Your task to perform on an android device: Do I have any events this weekend? Image 0: 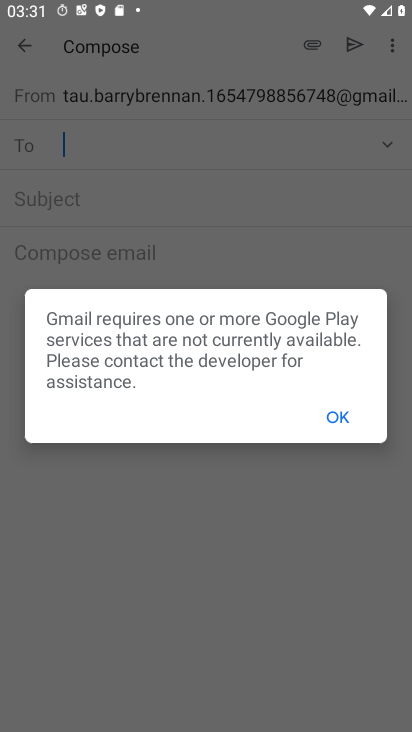
Step 0: click (326, 415)
Your task to perform on an android device: Do I have any events this weekend? Image 1: 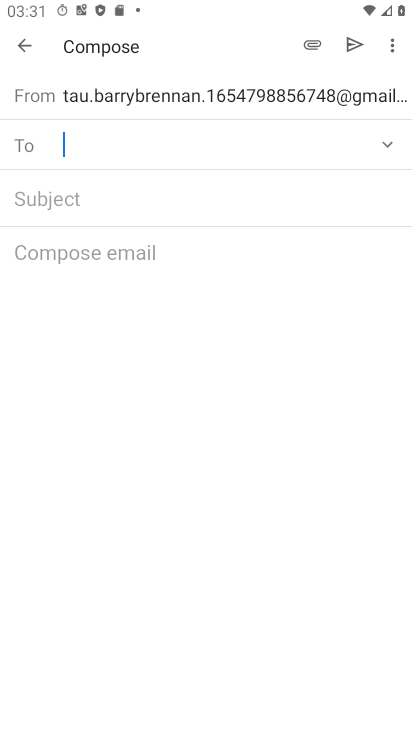
Step 1: click (24, 37)
Your task to perform on an android device: Do I have any events this weekend? Image 2: 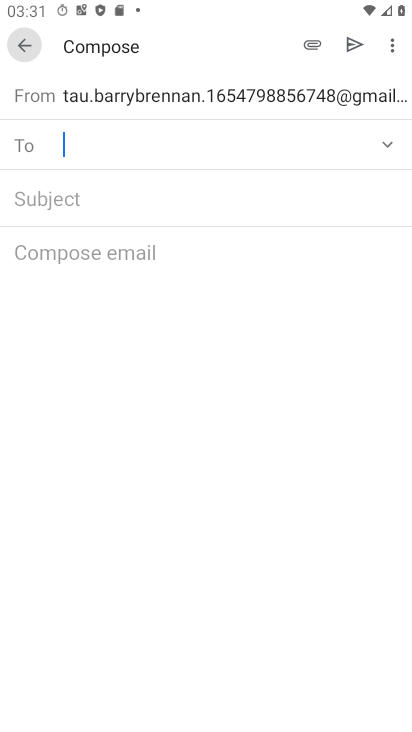
Step 2: click (24, 40)
Your task to perform on an android device: Do I have any events this weekend? Image 3: 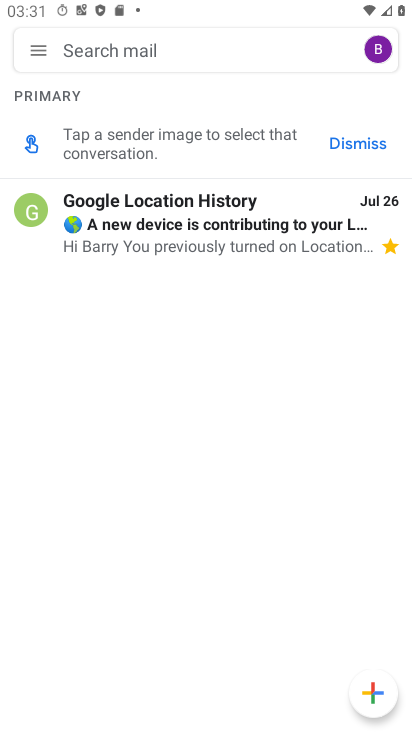
Step 3: press back button
Your task to perform on an android device: Do I have any events this weekend? Image 4: 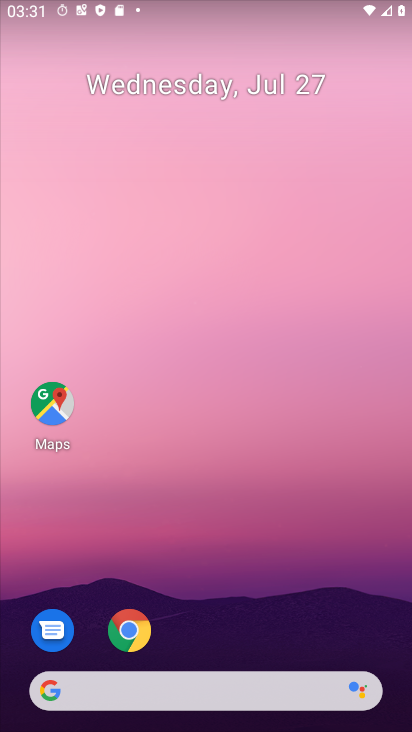
Step 4: drag from (304, 586) to (178, 115)
Your task to perform on an android device: Do I have any events this weekend? Image 5: 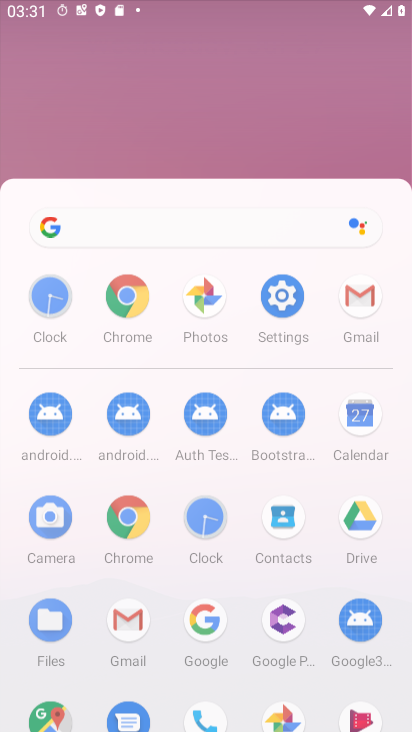
Step 5: drag from (287, 430) to (247, 153)
Your task to perform on an android device: Do I have any events this weekend? Image 6: 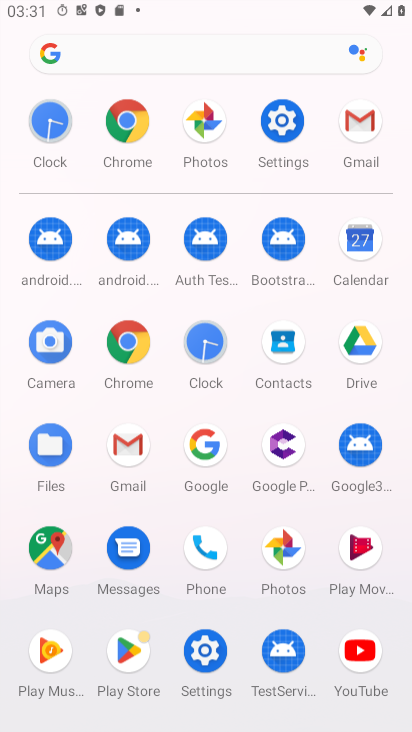
Step 6: drag from (237, 476) to (202, 126)
Your task to perform on an android device: Do I have any events this weekend? Image 7: 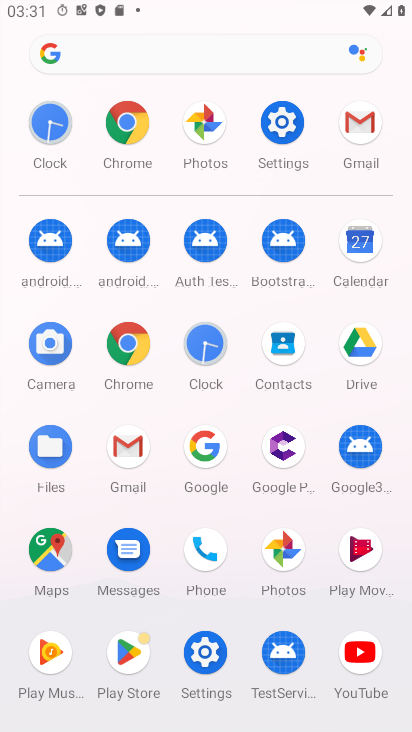
Step 7: click (362, 237)
Your task to perform on an android device: Do I have any events this weekend? Image 8: 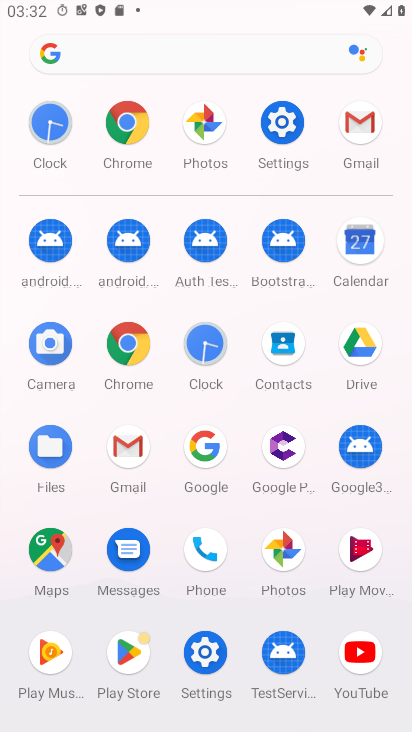
Step 8: click (367, 239)
Your task to perform on an android device: Do I have any events this weekend? Image 9: 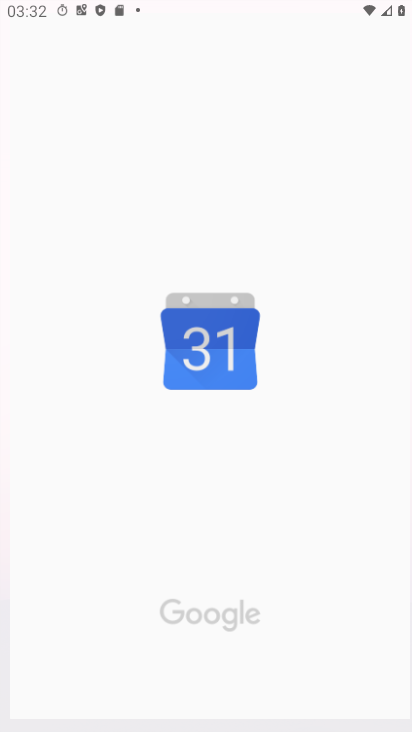
Step 9: click (367, 239)
Your task to perform on an android device: Do I have any events this weekend? Image 10: 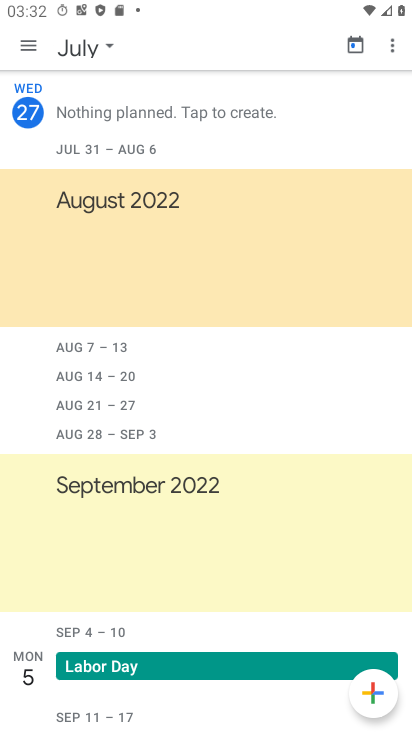
Step 10: click (109, 53)
Your task to perform on an android device: Do I have any events this weekend? Image 11: 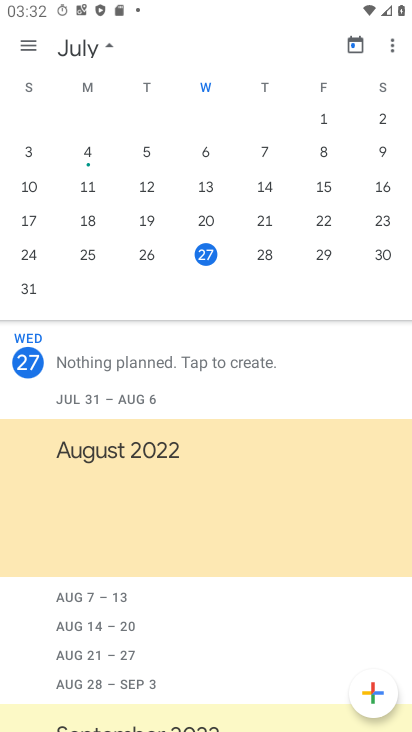
Step 11: click (315, 221)
Your task to perform on an android device: Do I have any events this weekend? Image 12: 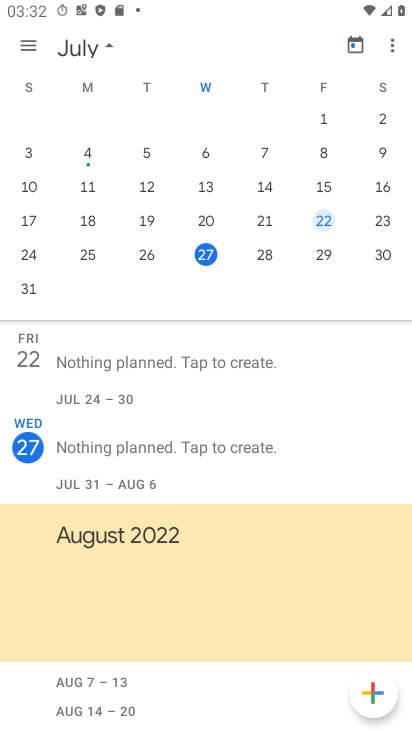
Step 12: click (318, 259)
Your task to perform on an android device: Do I have any events this weekend? Image 13: 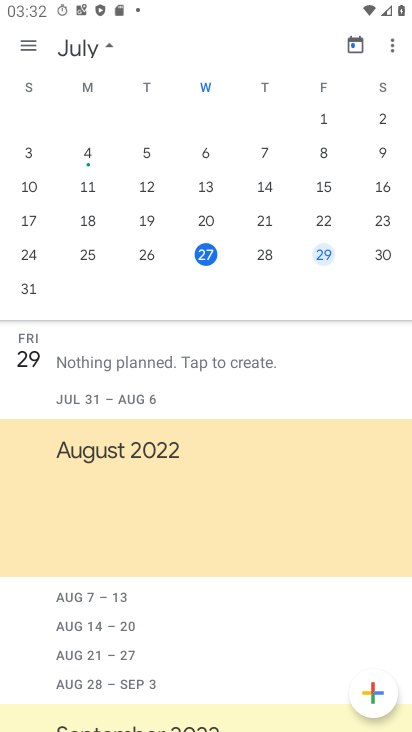
Step 13: task complete